Your task to perform on an android device: make emails show in primary in the gmail app Image 0: 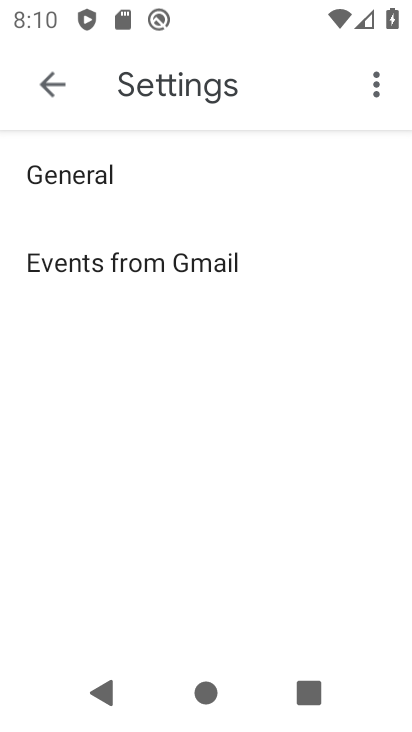
Step 0: press home button
Your task to perform on an android device: make emails show in primary in the gmail app Image 1: 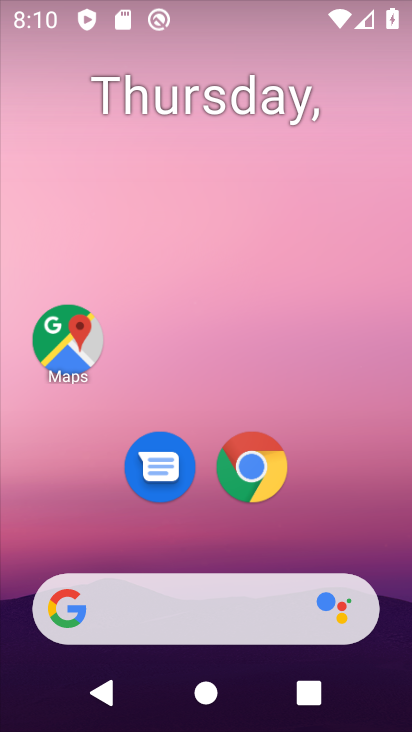
Step 1: drag from (233, 563) to (253, 209)
Your task to perform on an android device: make emails show in primary in the gmail app Image 2: 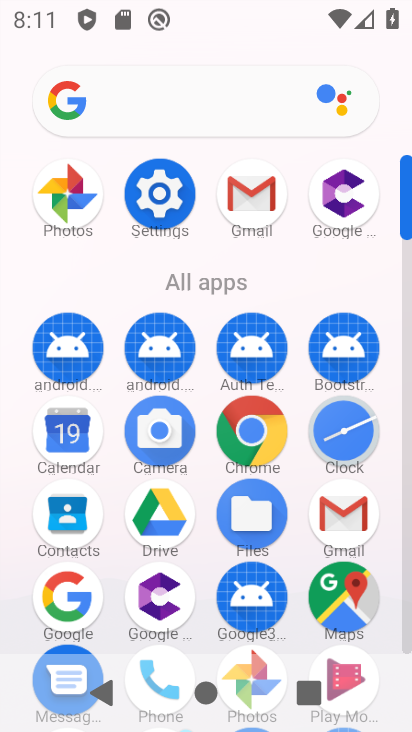
Step 2: click (254, 179)
Your task to perform on an android device: make emails show in primary in the gmail app Image 3: 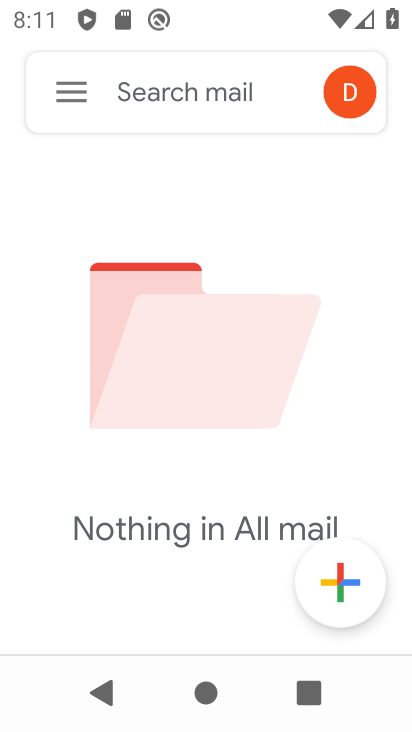
Step 3: click (63, 77)
Your task to perform on an android device: make emails show in primary in the gmail app Image 4: 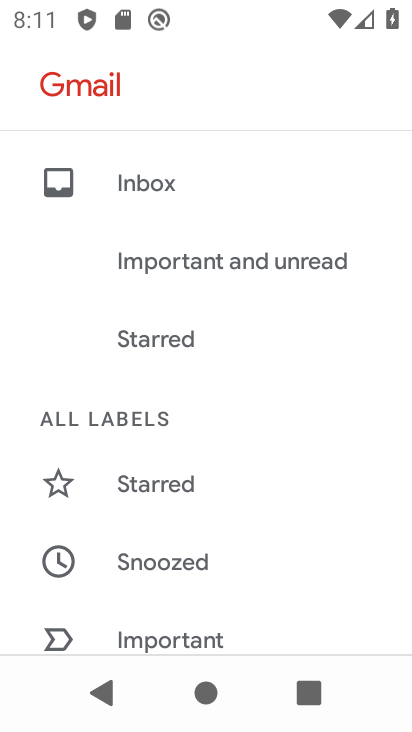
Step 4: drag from (185, 599) to (221, 163)
Your task to perform on an android device: make emails show in primary in the gmail app Image 5: 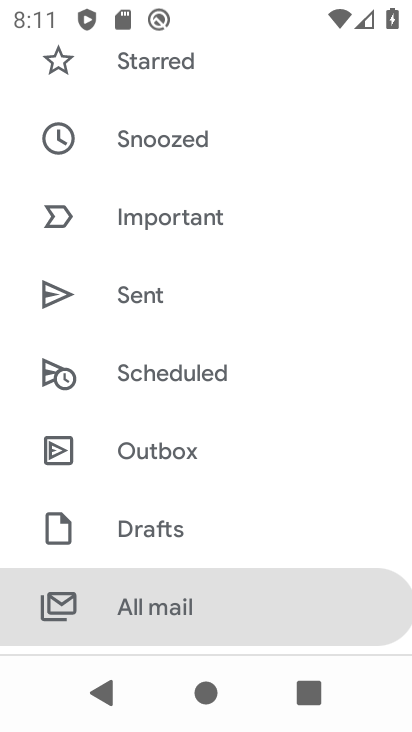
Step 5: drag from (234, 546) to (272, 110)
Your task to perform on an android device: make emails show in primary in the gmail app Image 6: 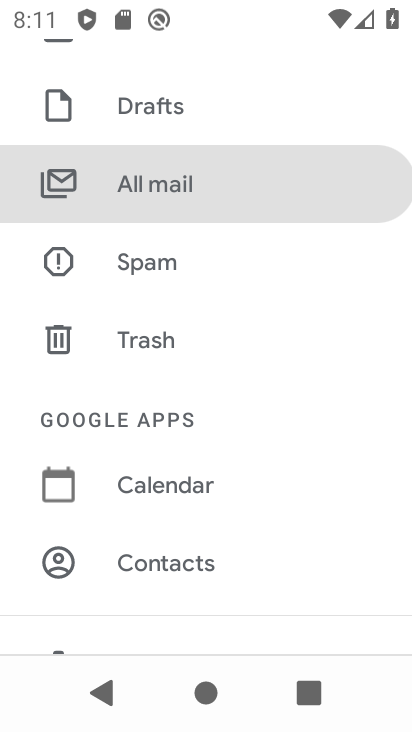
Step 6: drag from (178, 584) to (170, 242)
Your task to perform on an android device: make emails show in primary in the gmail app Image 7: 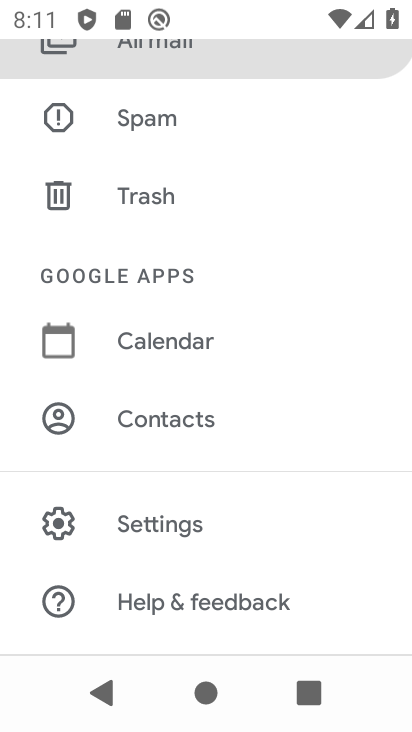
Step 7: click (169, 512)
Your task to perform on an android device: make emails show in primary in the gmail app Image 8: 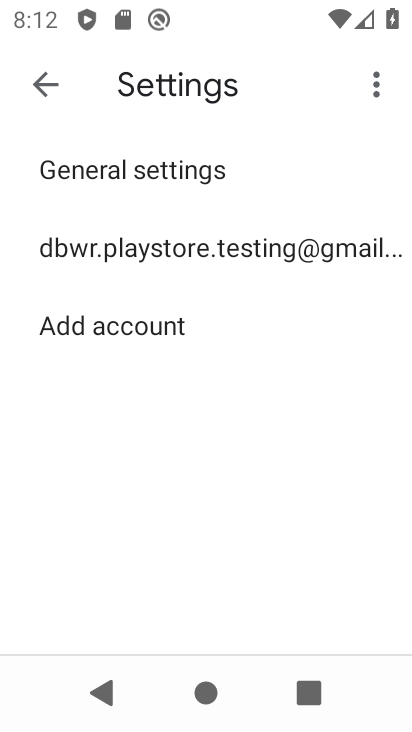
Step 8: task complete